Your task to perform on an android device: Open the map Image 0: 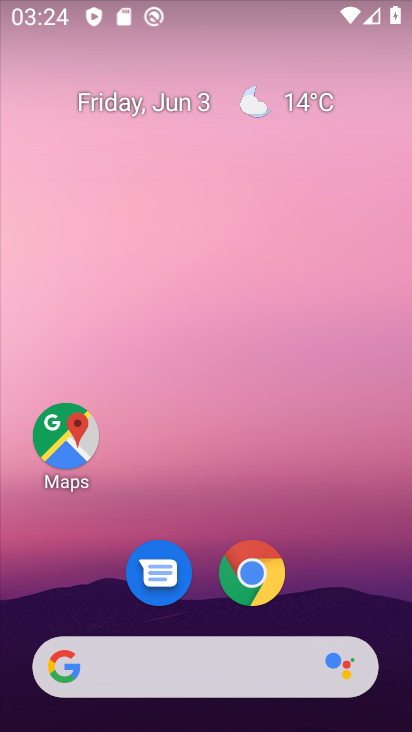
Step 0: drag from (299, 591) to (355, 37)
Your task to perform on an android device: Open the map Image 1: 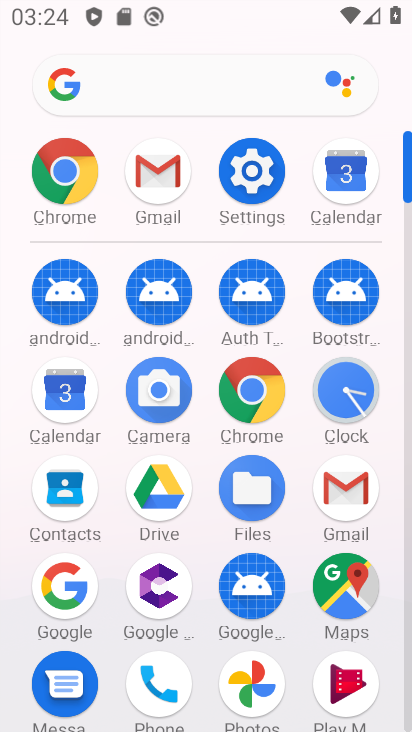
Step 1: click (358, 592)
Your task to perform on an android device: Open the map Image 2: 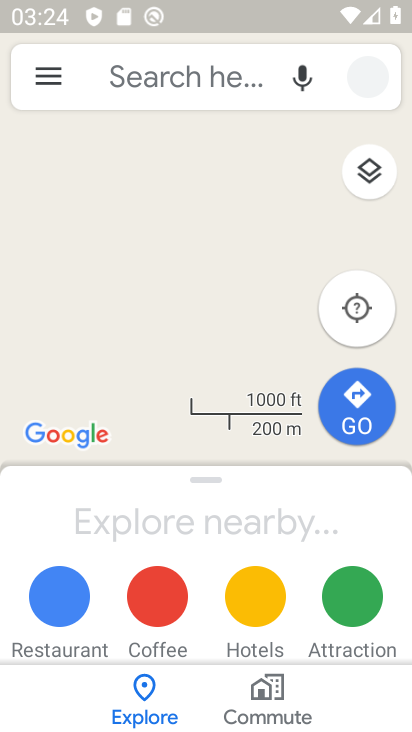
Step 2: task complete